Your task to perform on an android device: snooze an email in the gmail app Image 0: 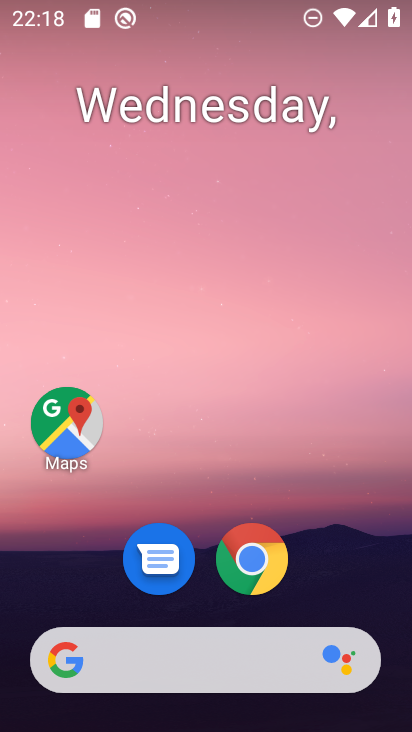
Step 0: drag from (366, 586) to (387, 233)
Your task to perform on an android device: snooze an email in the gmail app Image 1: 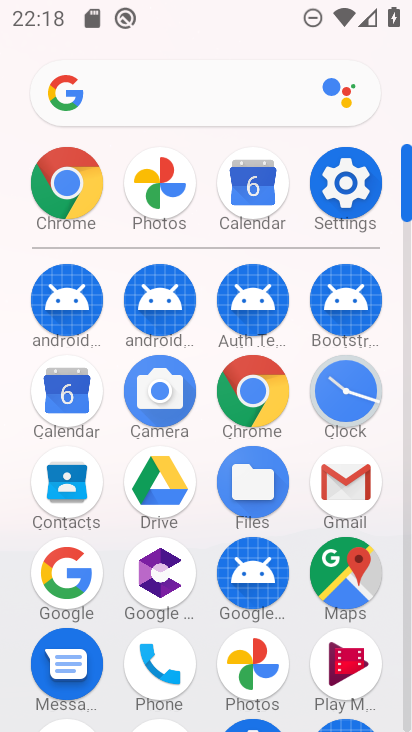
Step 1: click (367, 486)
Your task to perform on an android device: snooze an email in the gmail app Image 2: 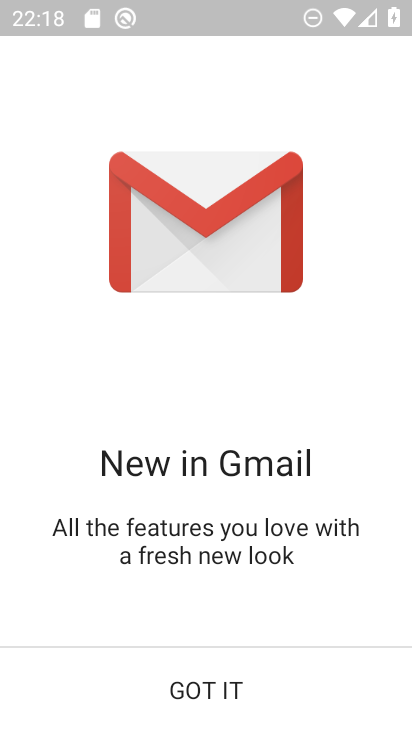
Step 2: click (249, 685)
Your task to perform on an android device: snooze an email in the gmail app Image 3: 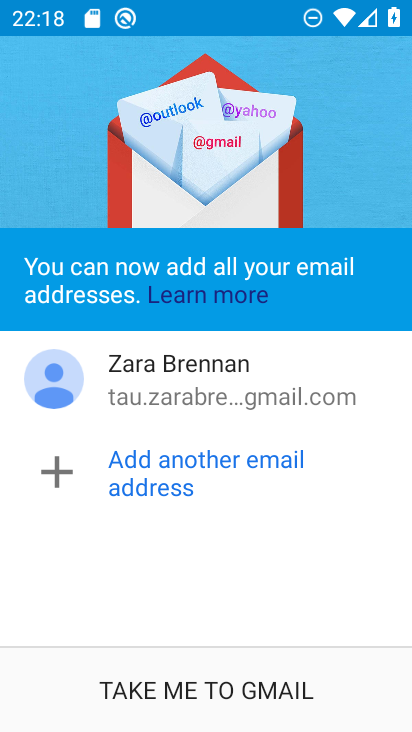
Step 3: click (249, 685)
Your task to perform on an android device: snooze an email in the gmail app Image 4: 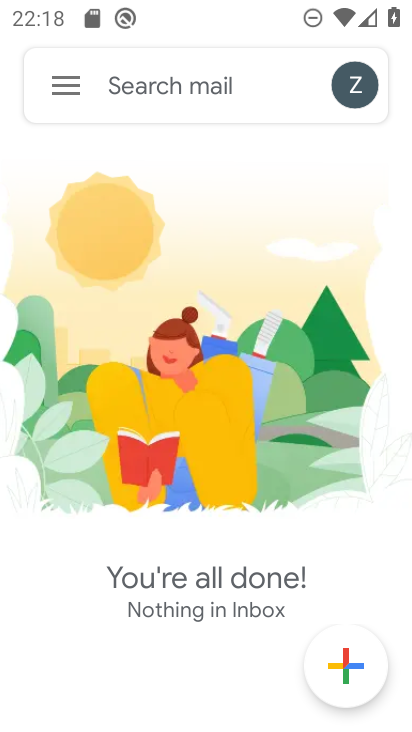
Step 4: click (72, 79)
Your task to perform on an android device: snooze an email in the gmail app Image 5: 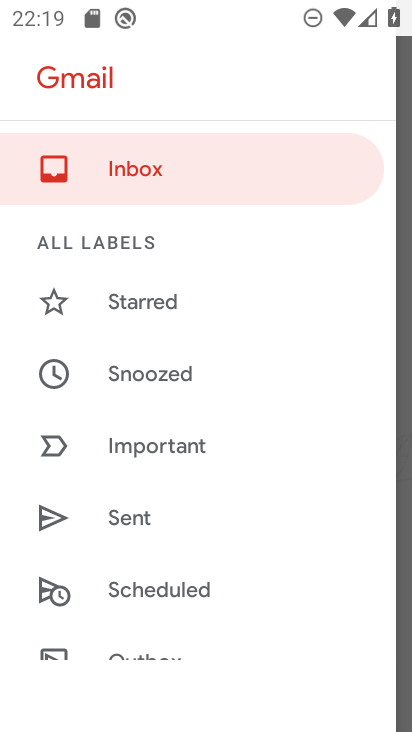
Step 5: drag from (301, 493) to (317, 386)
Your task to perform on an android device: snooze an email in the gmail app Image 6: 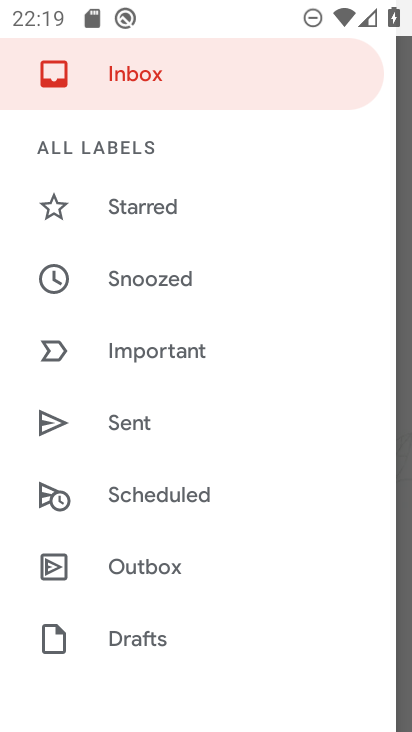
Step 6: drag from (308, 520) to (320, 384)
Your task to perform on an android device: snooze an email in the gmail app Image 7: 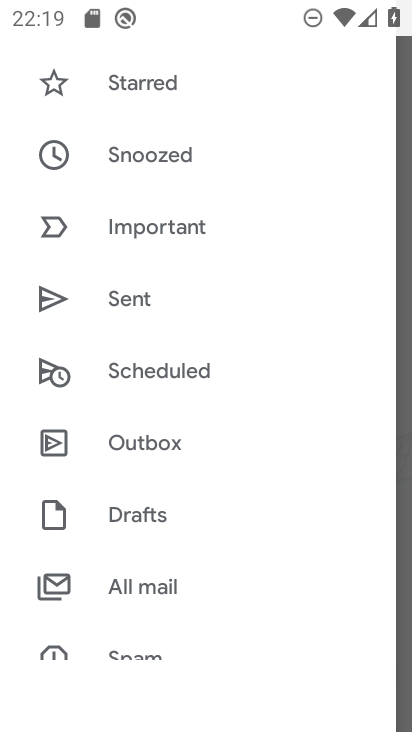
Step 7: drag from (306, 256) to (327, 428)
Your task to perform on an android device: snooze an email in the gmail app Image 8: 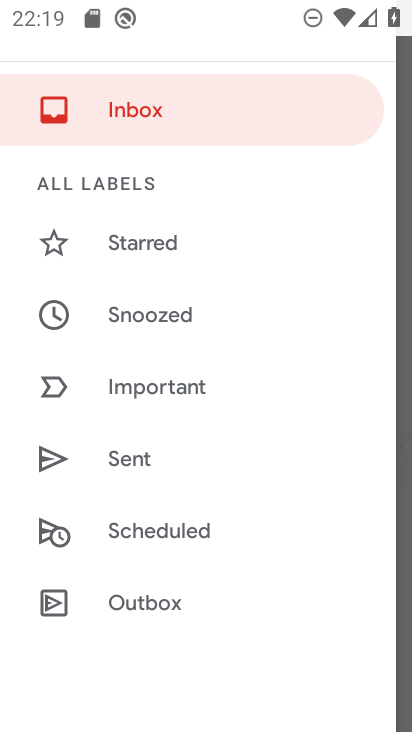
Step 8: click (192, 316)
Your task to perform on an android device: snooze an email in the gmail app Image 9: 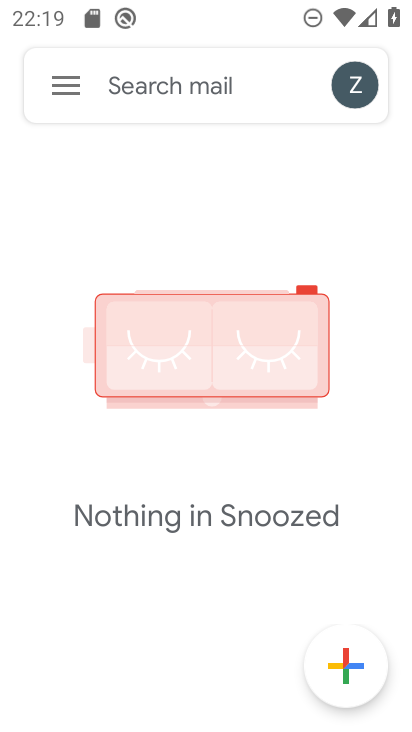
Step 9: task complete